Your task to perform on an android device: Go to battery settings Image 0: 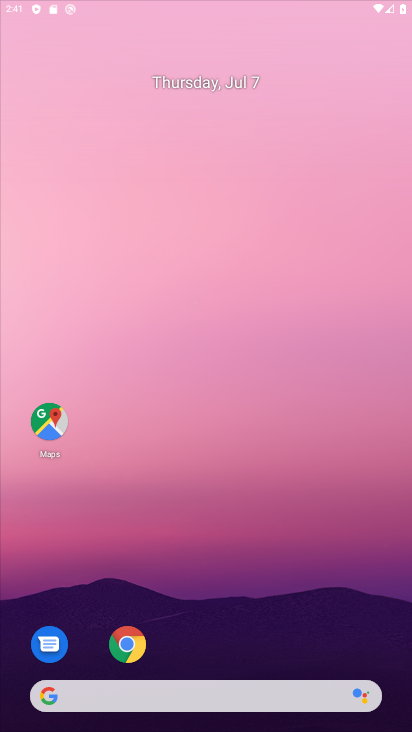
Step 0: drag from (184, 644) to (120, 215)
Your task to perform on an android device: Go to battery settings Image 1: 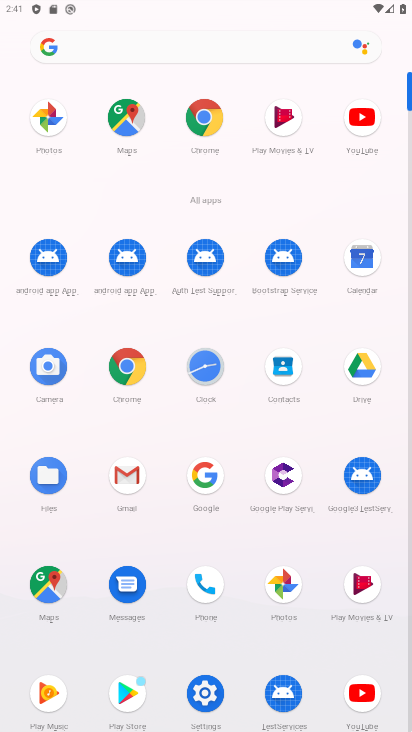
Step 1: click (202, 670)
Your task to perform on an android device: Go to battery settings Image 2: 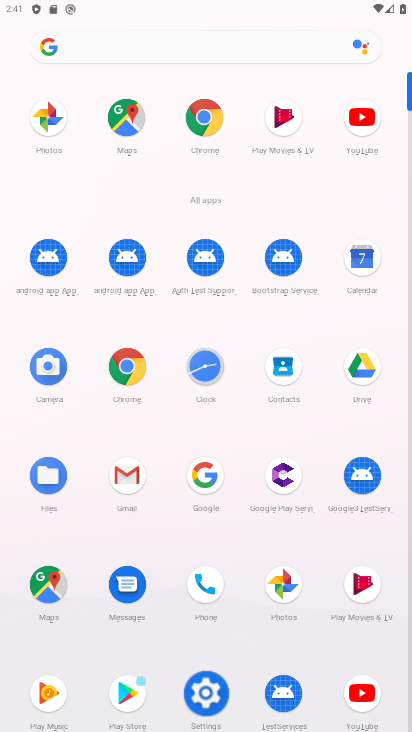
Step 2: click (212, 680)
Your task to perform on an android device: Go to battery settings Image 3: 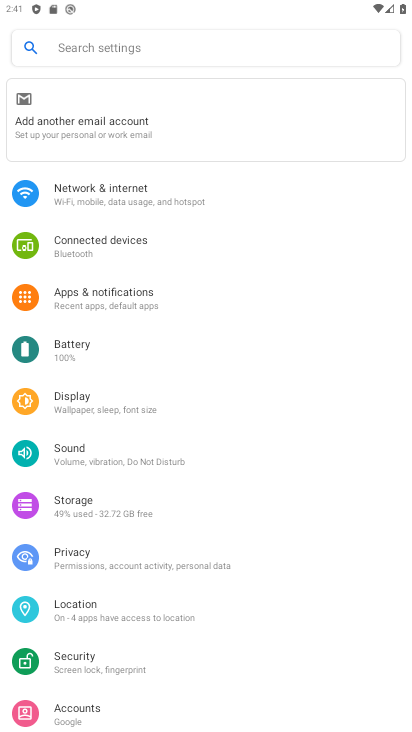
Step 3: click (85, 344)
Your task to perform on an android device: Go to battery settings Image 4: 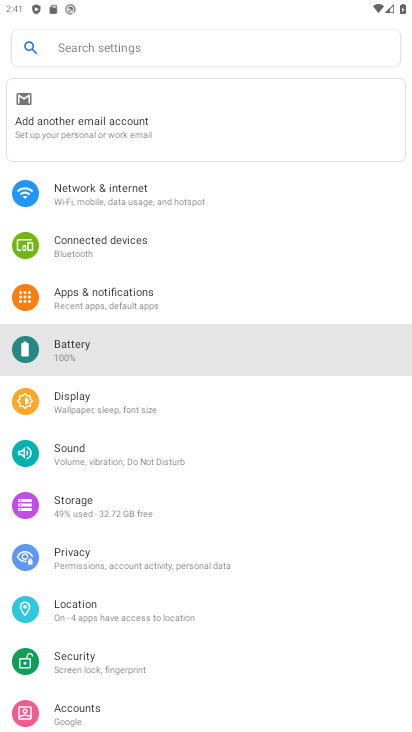
Step 4: click (85, 344)
Your task to perform on an android device: Go to battery settings Image 5: 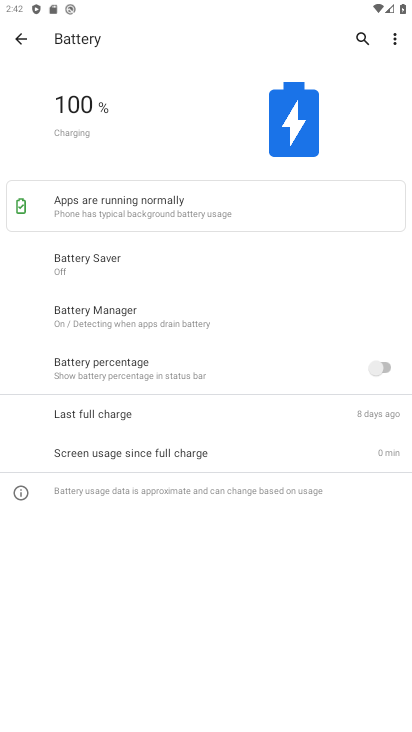
Step 5: task complete